Your task to perform on an android device: clear history in the chrome app Image 0: 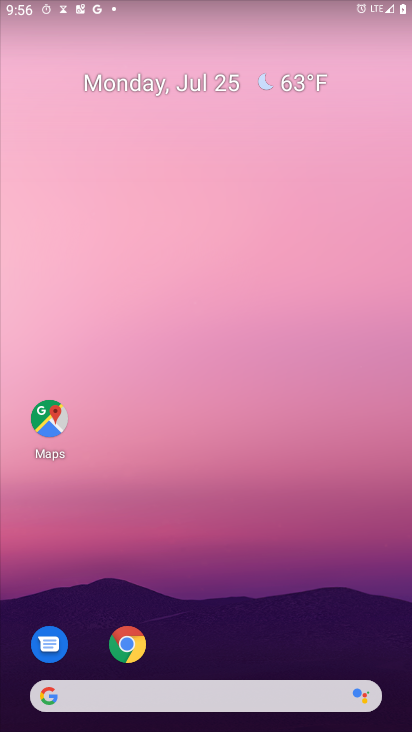
Step 0: drag from (227, 571) to (154, 38)
Your task to perform on an android device: clear history in the chrome app Image 1: 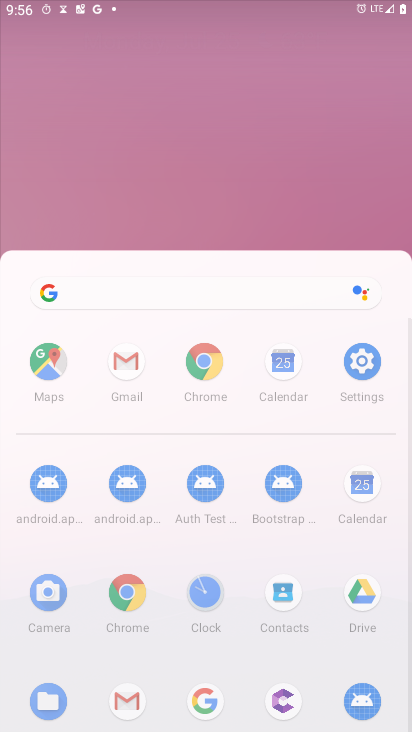
Step 1: drag from (201, 570) to (141, 53)
Your task to perform on an android device: clear history in the chrome app Image 2: 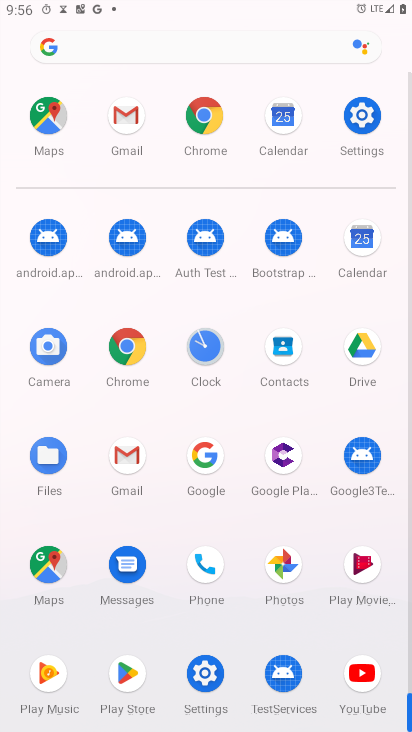
Step 2: drag from (113, 323) to (138, 132)
Your task to perform on an android device: clear history in the chrome app Image 3: 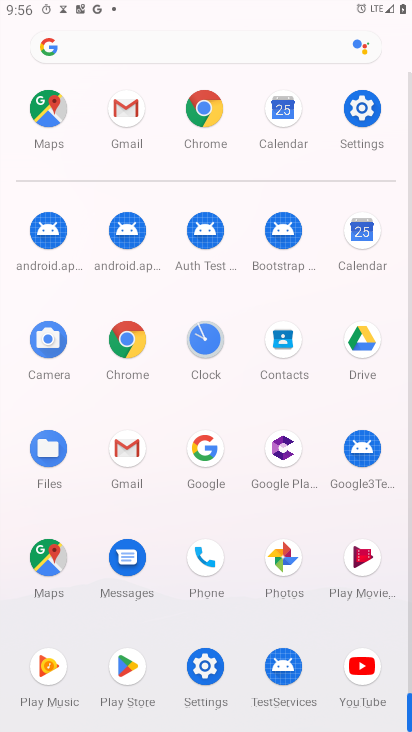
Step 3: click (194, 120)
Your task to perform on an android device: clear history in the chrome app Image 4: 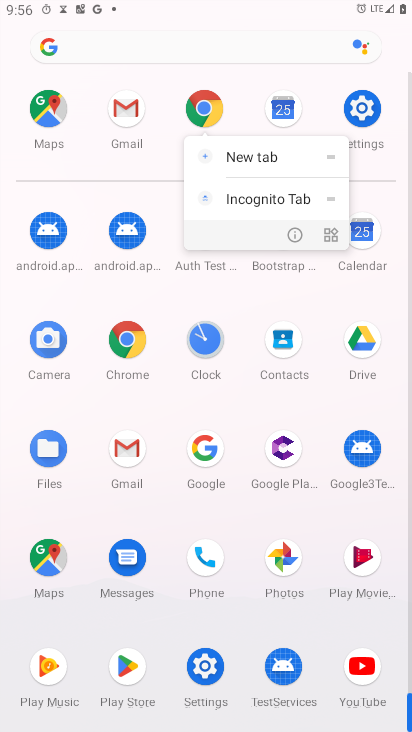
Step 4: click (208, 98)
Your task to perform on an android device: clear history in the chrome app Image 5: 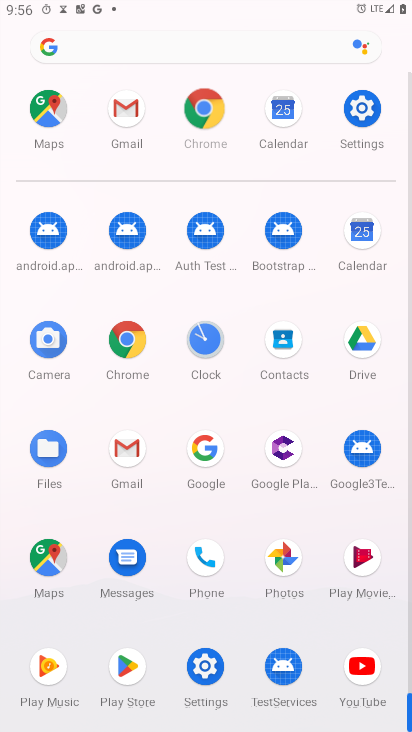
Step 5: click (199, 98)
Your task to perform on an android device: clear history in the chrome app Image 6: 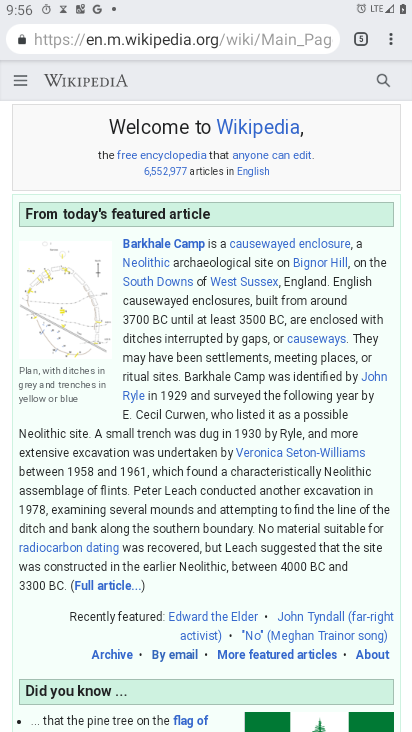
Step 6: click (393, 36)
Your task to perform on an android device: clear history in the chrome app Image 7: 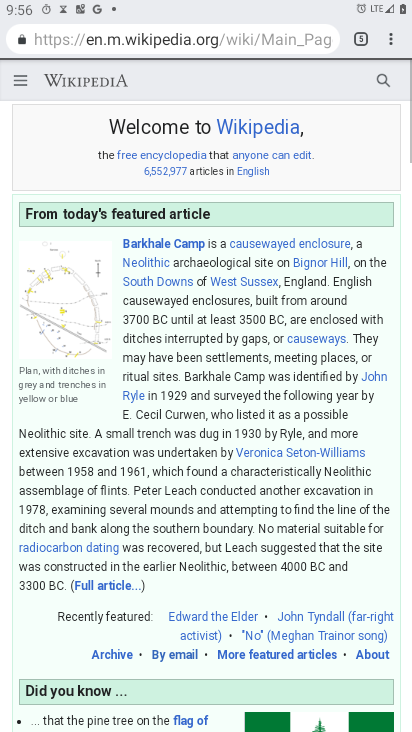
Step 7: click (391, 37)
Your task to perform on an android device: clear history in the chrome app Image 8: 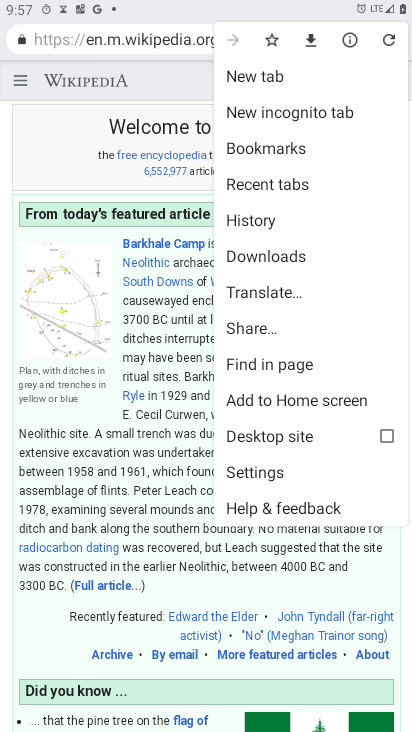
Step 8: click (254, 225)
Your task to perform on an android device: clear history in the chrome app Image 9: 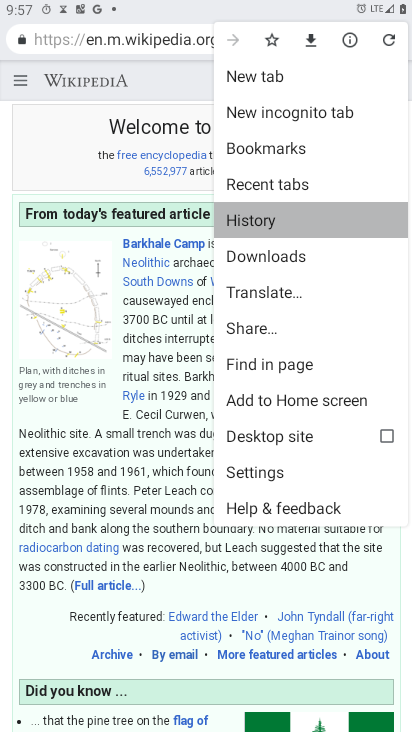
Step 9: click (253, 223)
Your task to perform on an android device: clear history in the chrome app Image 10: 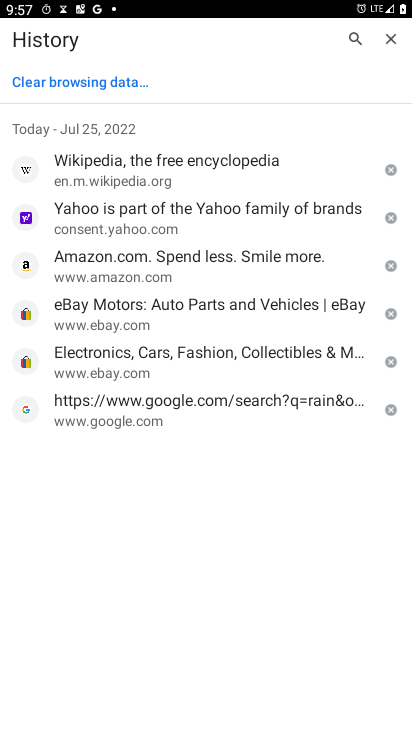
Step 10: click (109, 91)
Your task to perform on an android device: clear history in the chrome app Image 11: 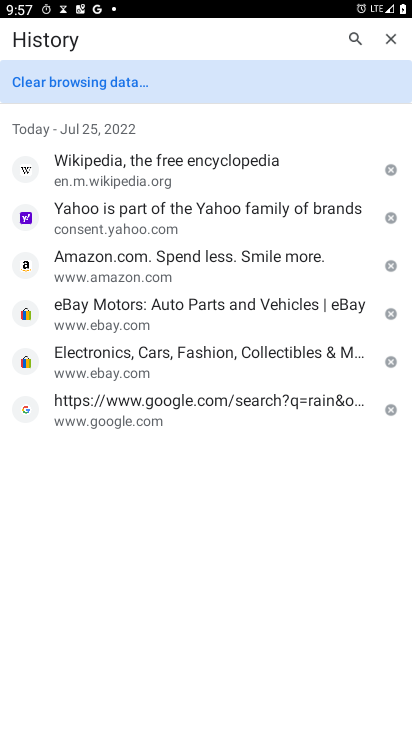
Step 11: click (103, 86)
Your task to perform on an android device: clear history in the chrome app Image 12: 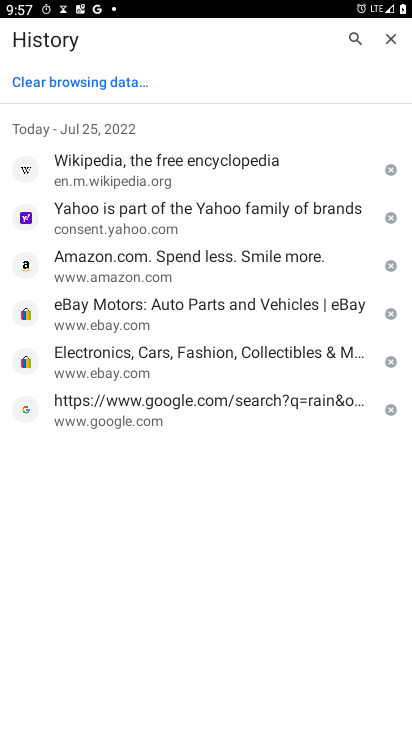
Step 12: click (107, 87)
Your task to perform on an android device: clear history in the chrome app Image 13: 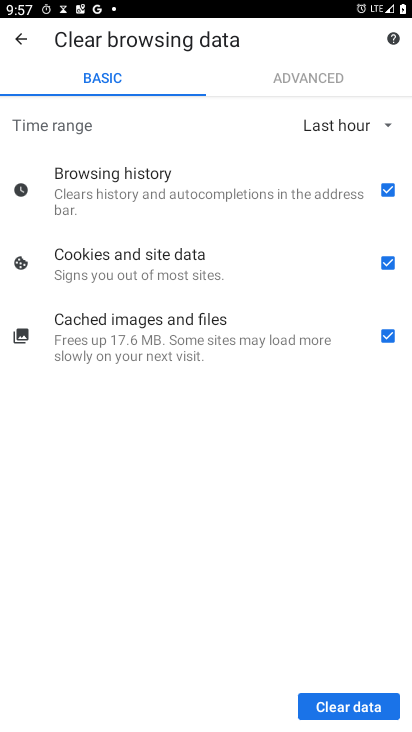
Step 13: click (350, 714)
Your task to perform on an android device: clear history in the chrome app Image 14: 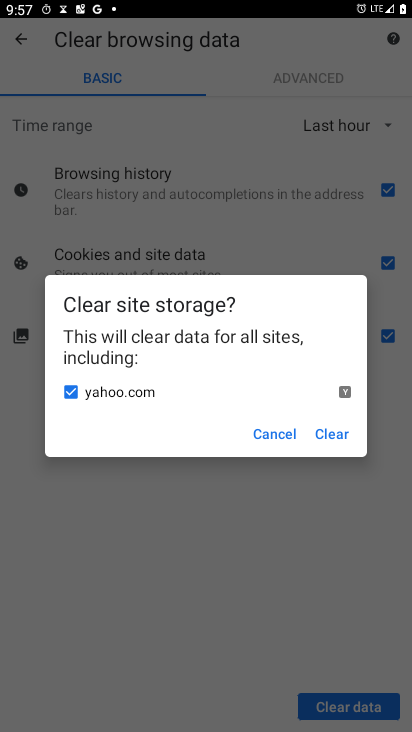
Step 14: task complete